Your task to perform on an android device: Go to display settings Image 0: 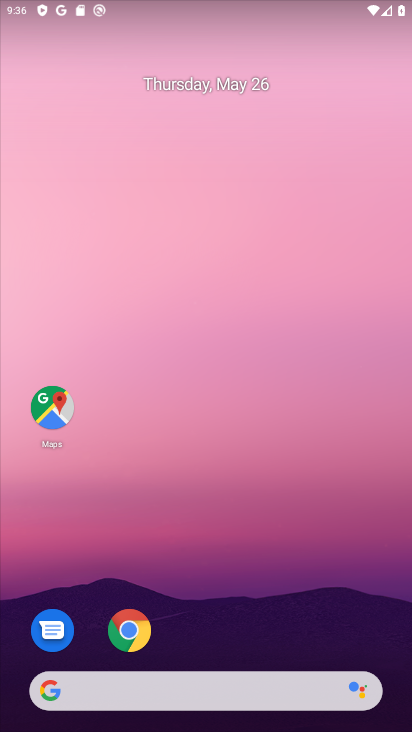
Step 0: drag from (199, 658) to (275, 74)
Your task to perform on an android device: Go to display settings Image 1: 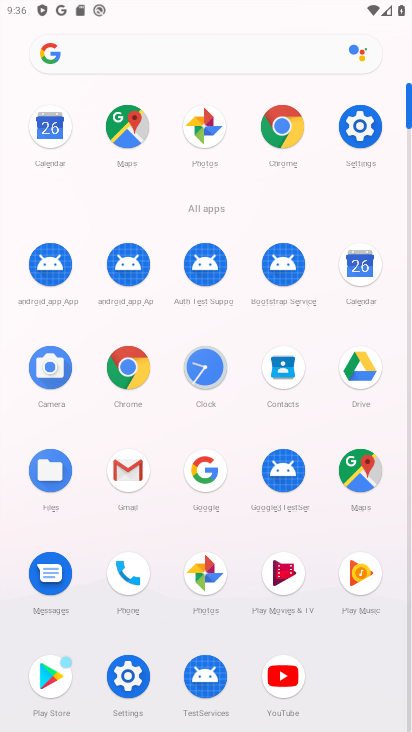
Step 1: click (367, 125)
Your task to perform on an android device: Go to display settings Image 2: 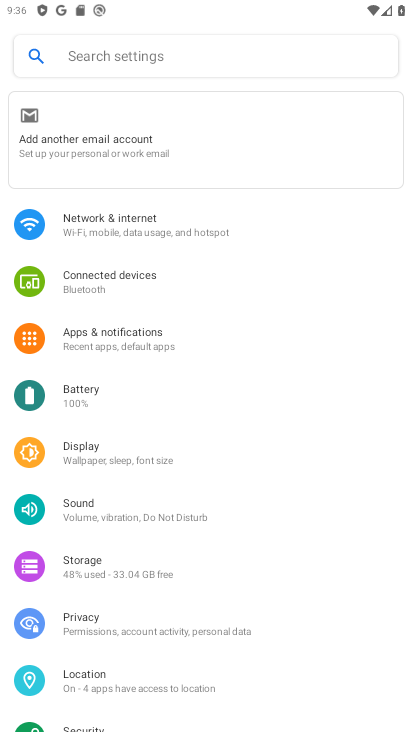
Step 2: click (94, 439)
Your task to perform on an android device: Go to display settings Image 3: 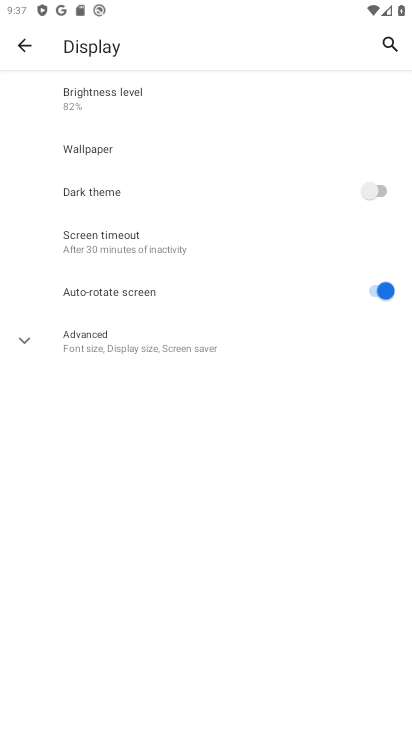
Step 3: task complete